Your task to perform on an android device: add a contact Image 0: 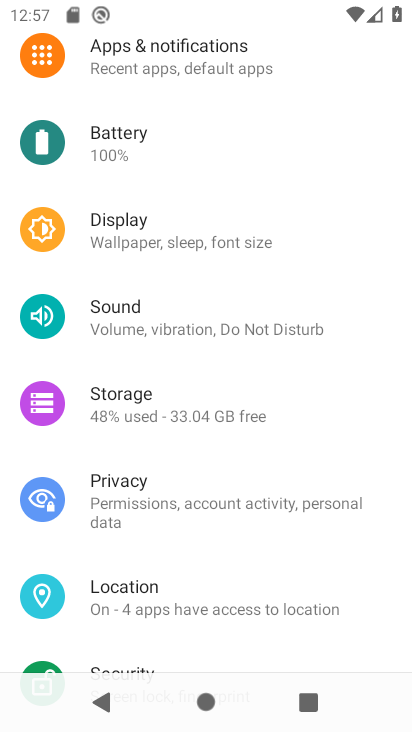
Step 0: press home button
Your task to perform on an android device: add a contact Image 1: 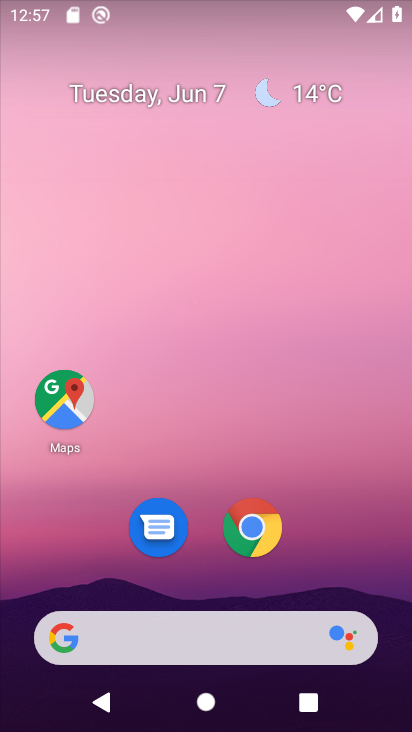
Step 1: drag from (307, 543) to (309, 4)
Your task to perform on an android device: add a contact Image 2: 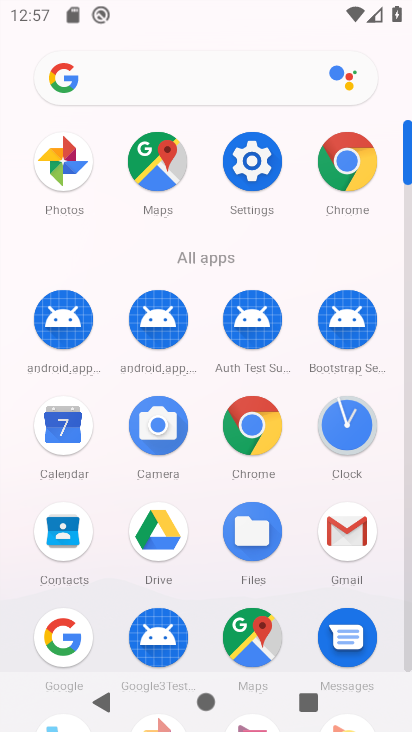
Step 2: click (71, 537)
Your task to perform on an android device: add a contact Image 3: 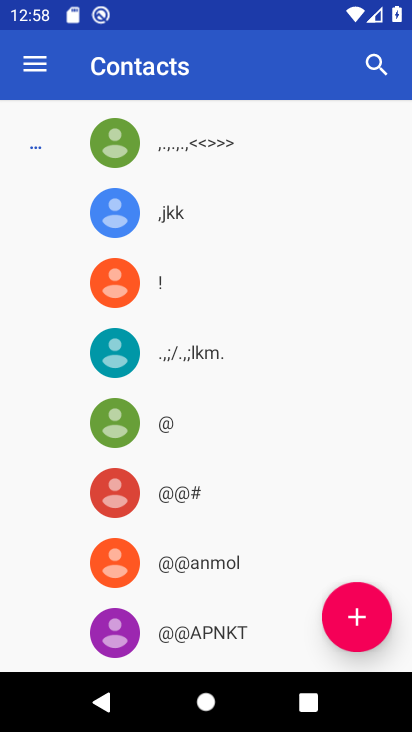
Step 3: click (347, 624)
Your task to perform on an android device: add a contact Image 4: 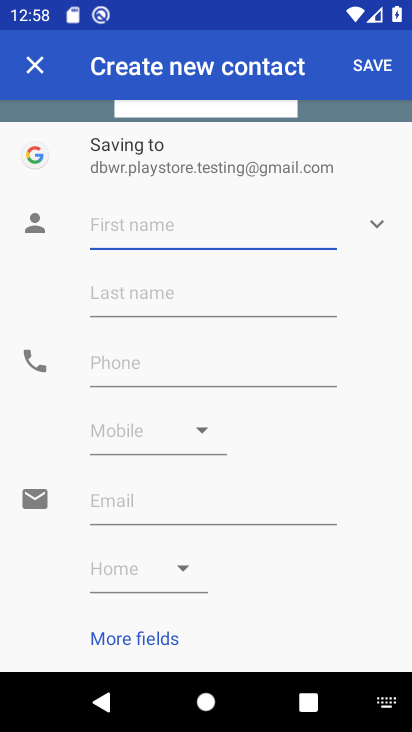
Step 4: type "sdcx"
Your task to perform on an android device: add a contact Image 5: 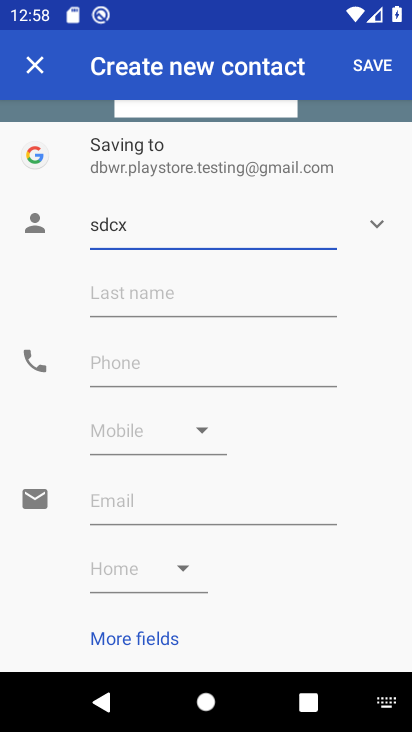
Step 5: click (135, 360)
Your task to perform on an android device: add a contact Image 6: 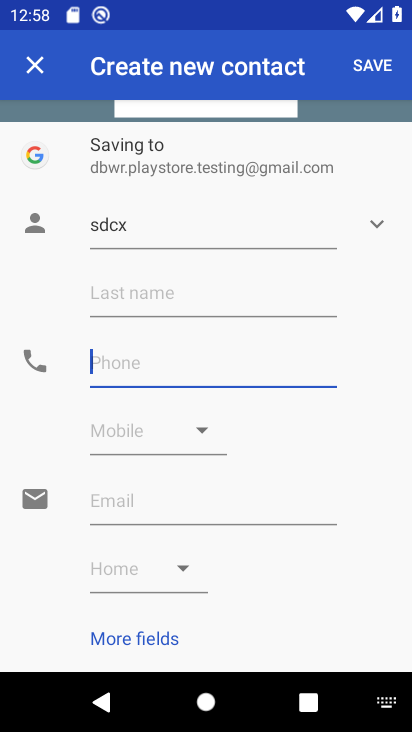
Step 6: type "456789098"
Your task to perform on an android device: add a contact Image 7: 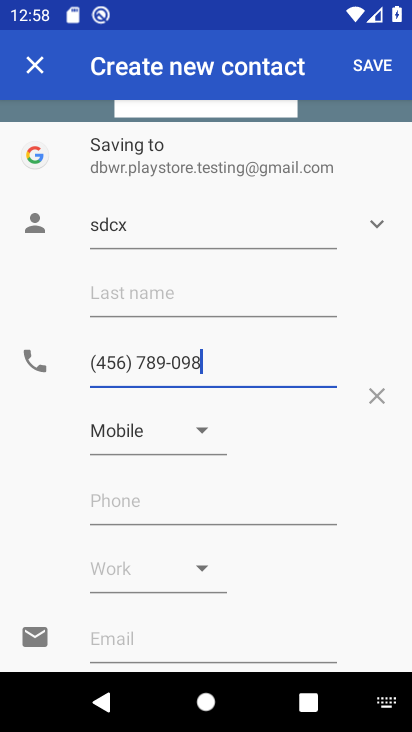
Step 7: click (364, 63)
Your task to perform on an android device: add a contact Image 8: 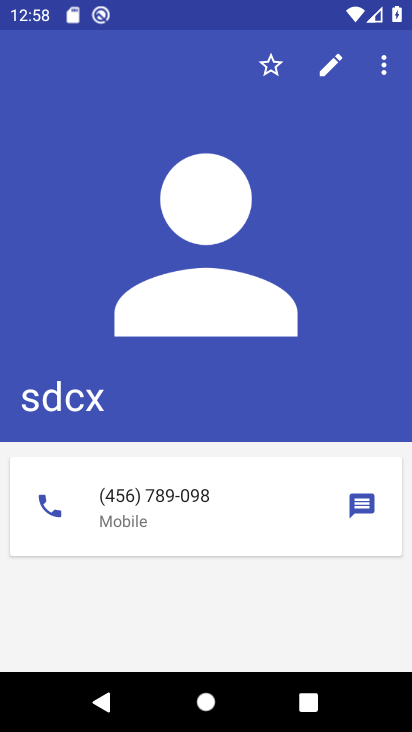
Step 8: task complete